Your task to perform on an android device: open a bookmark in the chrome app Image 0: 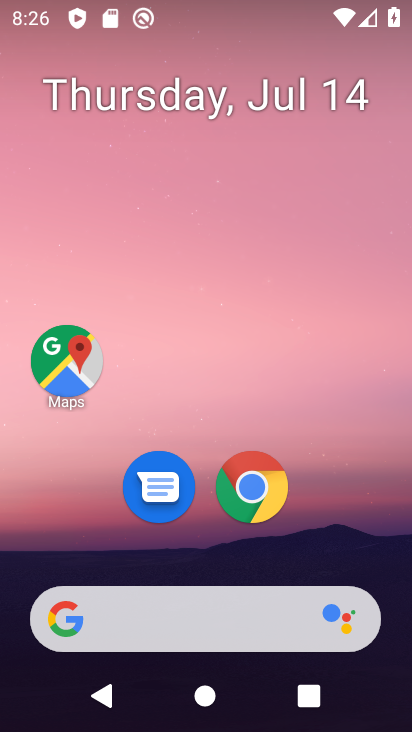
Step 0: click (256, 498)
Your task to perform on an android device: open a bookmark in the chrome app Image 1: 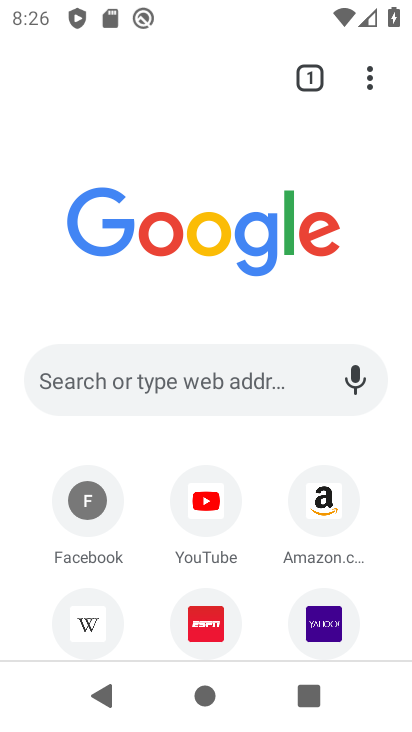
Step 1: drag from (369, 78) to (187, 291)
Your task to perform on an android device: open a bookmark in the chrome app Image 2: 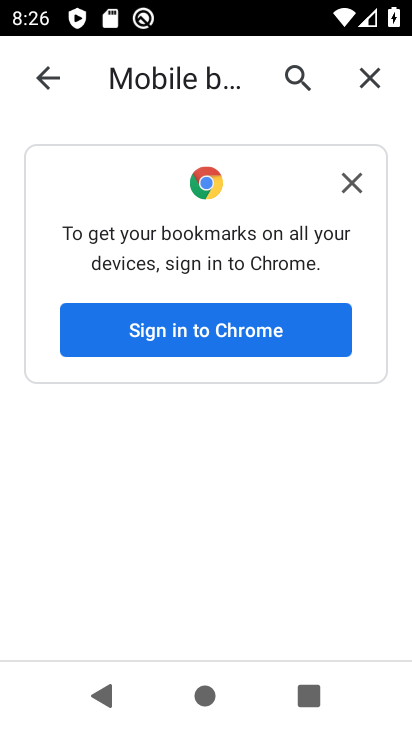
Step 2: click (355, 181)
Your task to perform on an android device: open a bookmark in the chrome app Image 3: 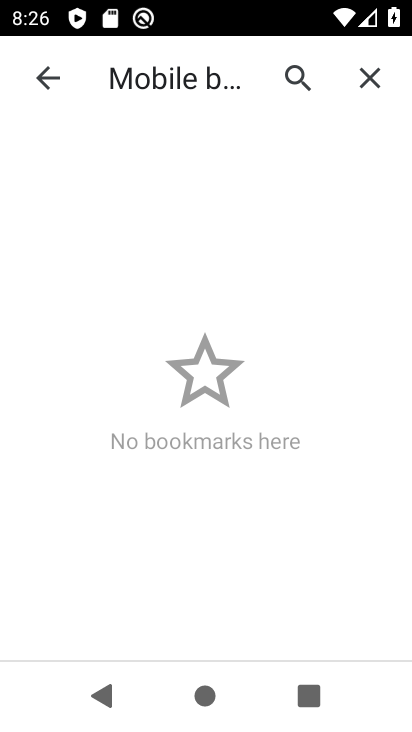
Step 3: task complete